Your task to perform on an android device: check battery use Image 0: 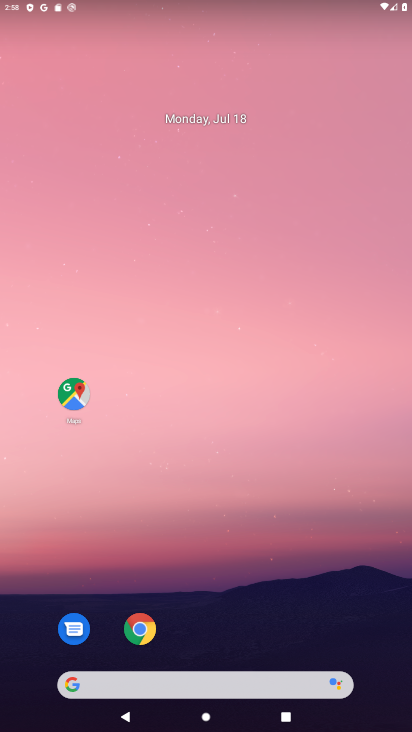
Step 0: drag from (210, 663) to (182, 142)
Your task to perform on an android device: check battery use Image 1: 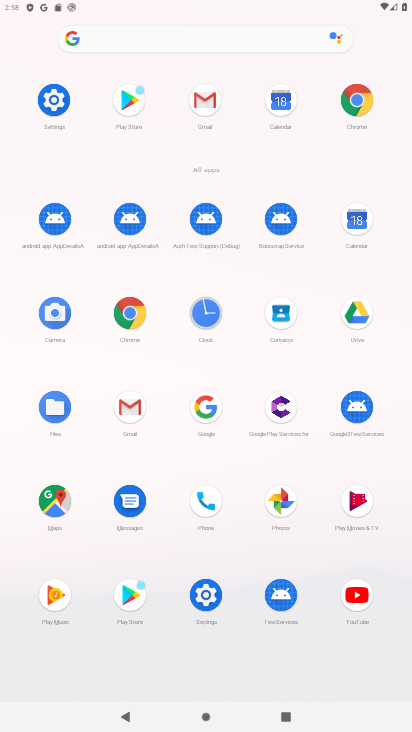
Step 1: click (38, 113)
Your task to perform on an android device: check battery use Image 2: 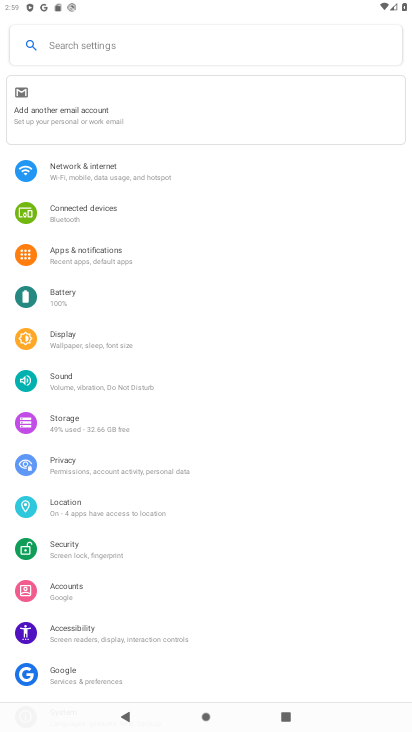
Step 2: click (63, 310)
Your task to perform on an android device: check battery use Image 3: 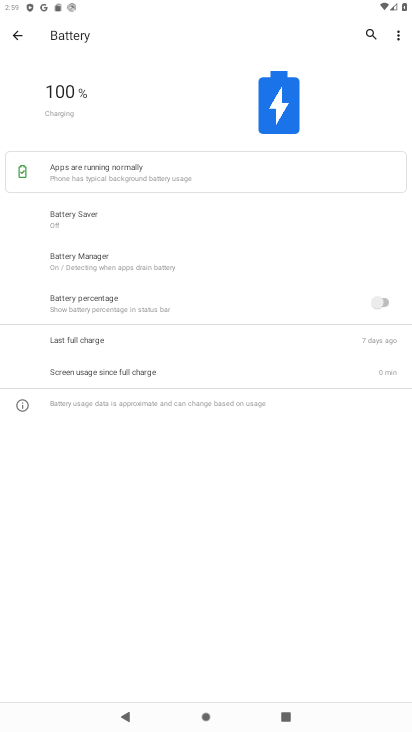
Step 3: click (84, 213)
Your task to perform on an android device: check battery use Image 4: 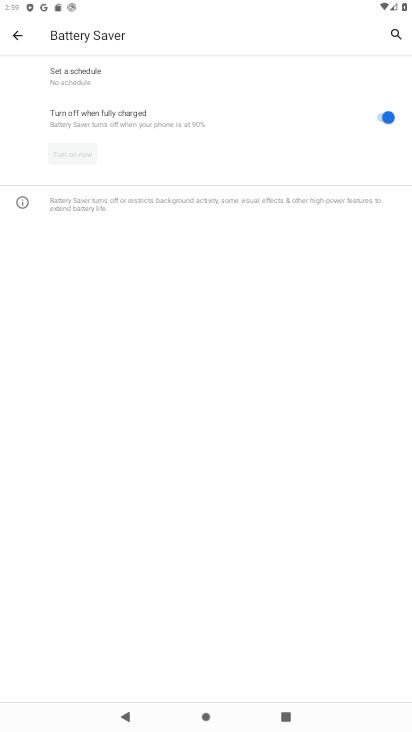
Step 4: click (26, 33)
Your task to perform on an android device: check battery use Image 5: 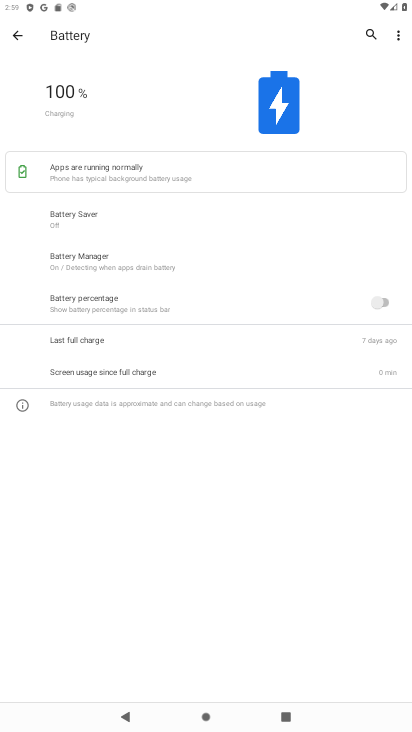
Step 5: click (398, 37)
Your task to perform on an android device: check battery use Image 6: 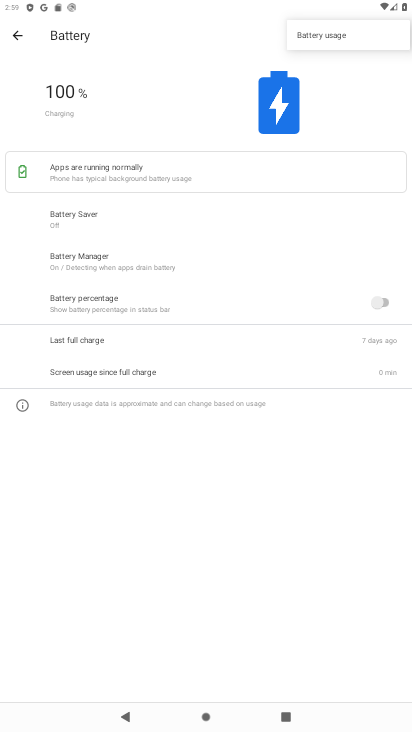
Step 6: click (347, 40)
Your task to perform on an android device: check battery use Image 7: 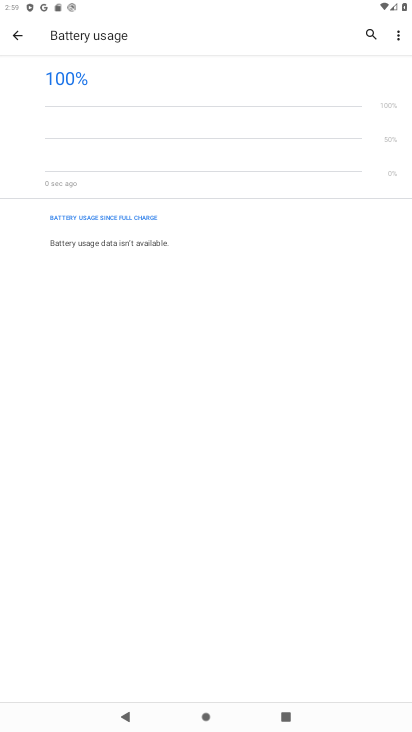
Step 7: task complete